Your task to perform on an android device: Open internet settings Image 0: 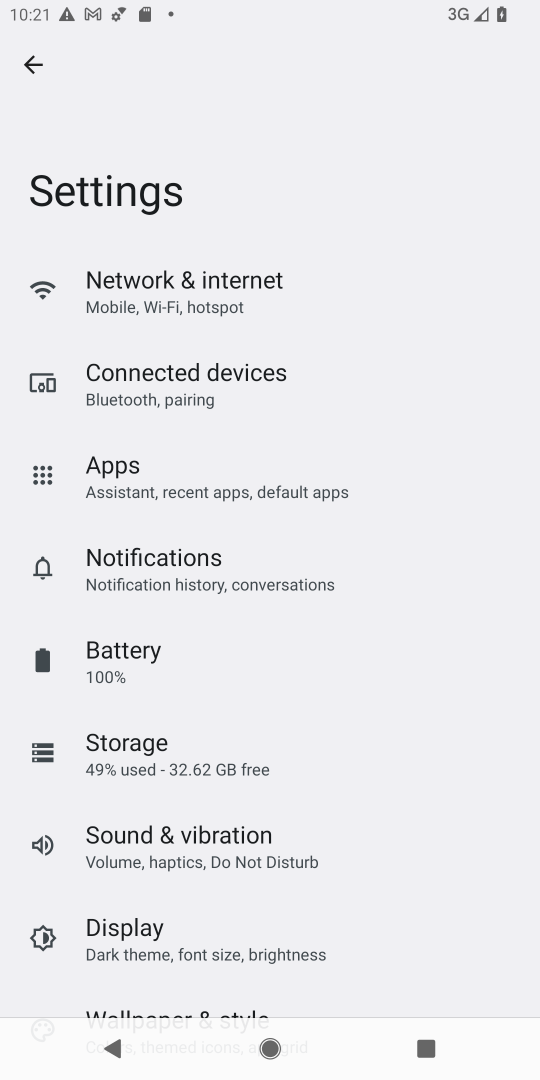
Step 0: press home button
Your task to perform on an android device: Open internet settings Image 1: 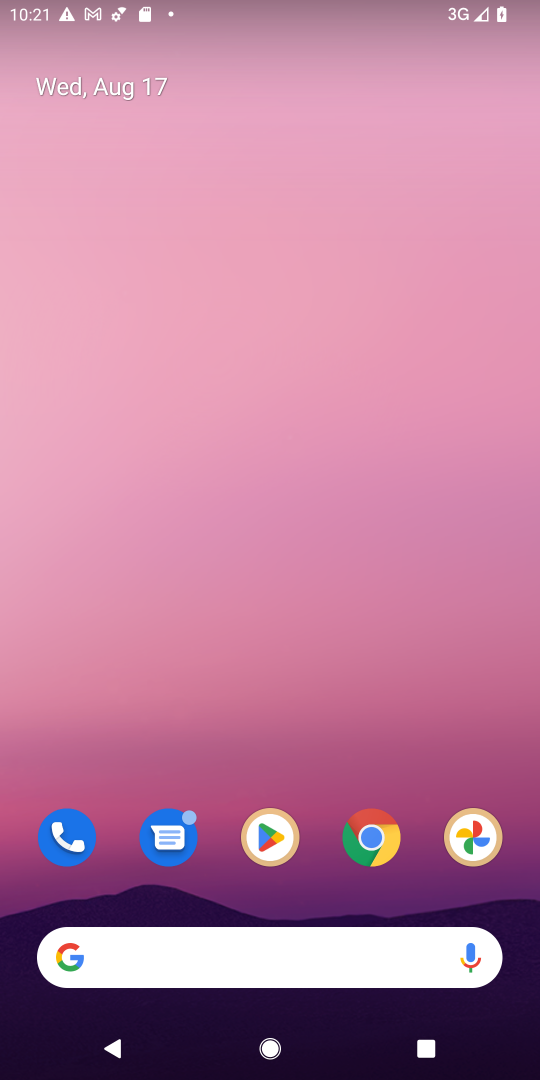
Step 1: drag from (238, 962) to (328, 155)
Your task to perform on an android device: Open internet settings Image 2: 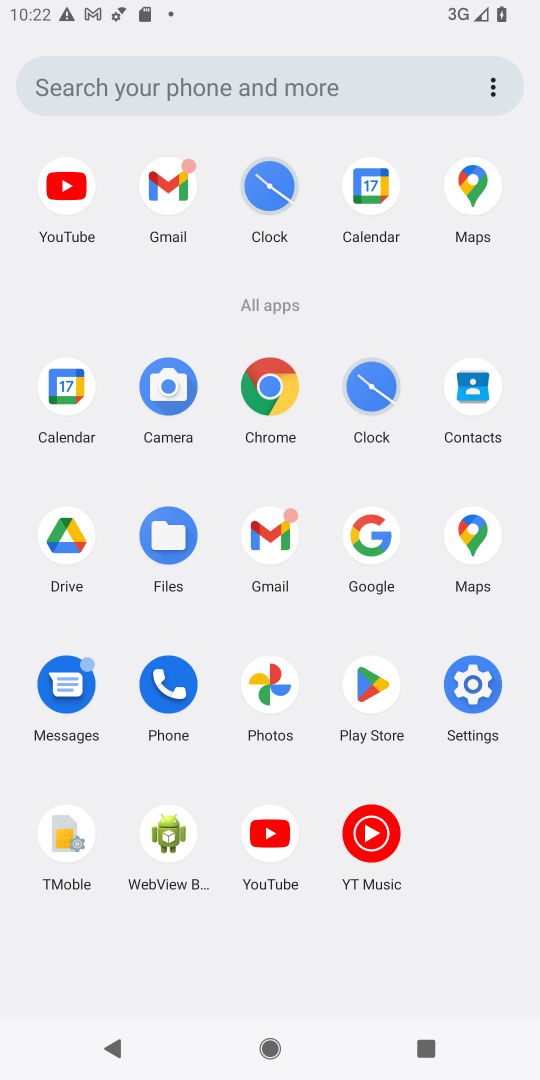
Step 2: click (472, 685)
Your task to perform on an android device: Open internet settings Image 3: 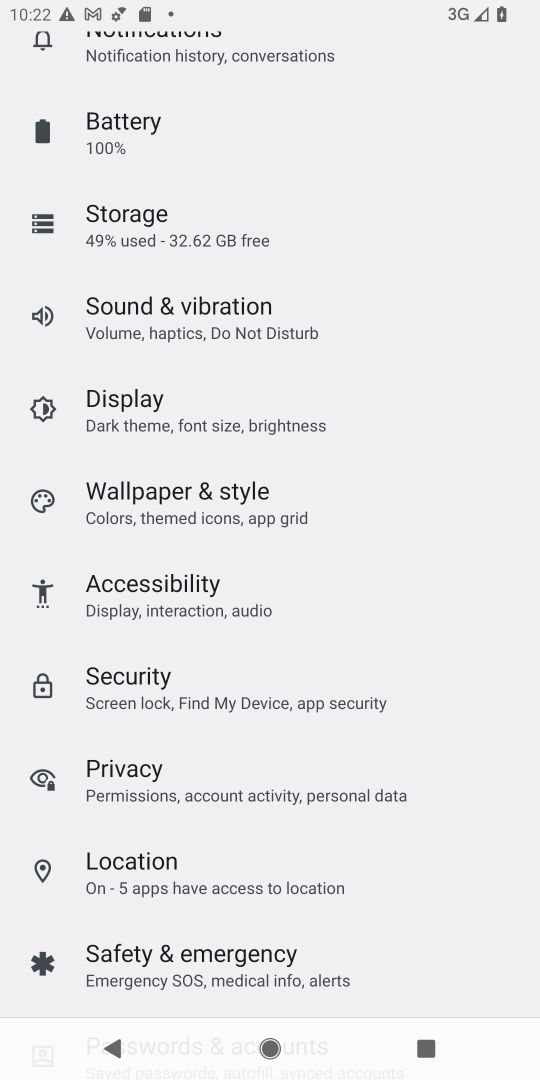
Step 3: drag from (301, 375) to (288, 563)
Your task to perform on an android device: Open internet settings Image 4: 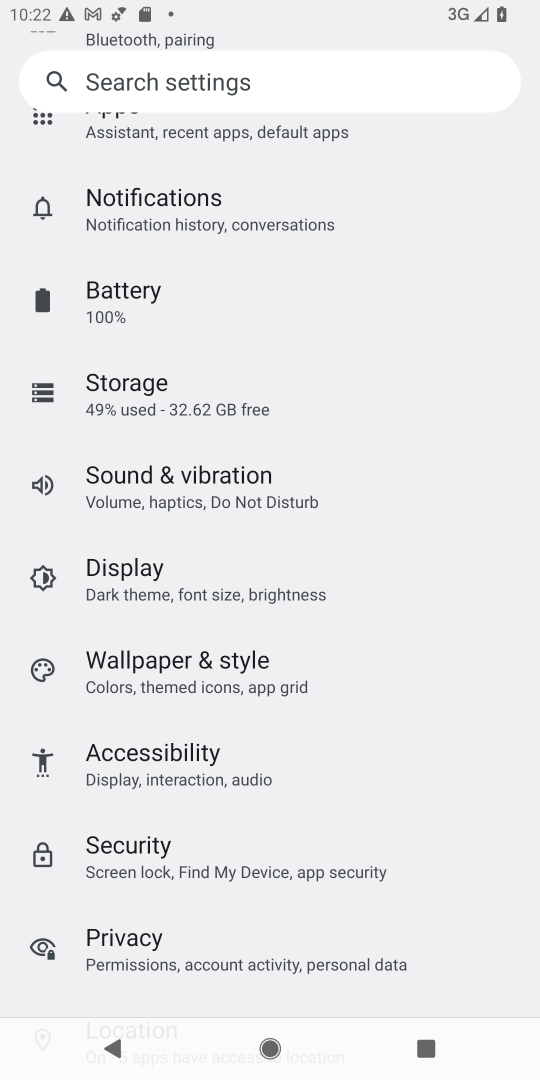
Step 4: drag from (228, 306) to (276, 542)
Your task to perform on an android device: Open internet settings Image 5: 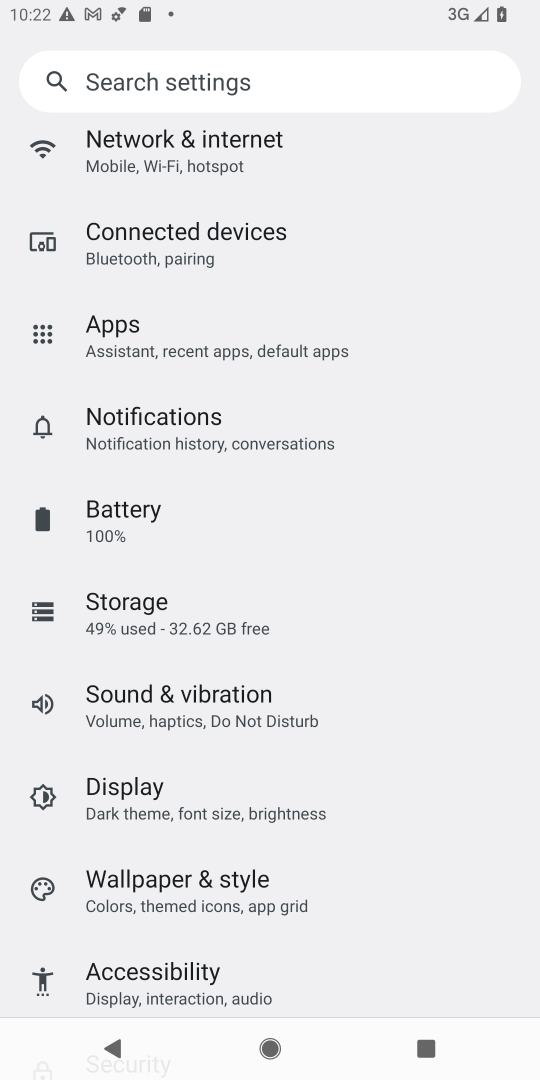
Step 5: drag from (213, 341) to (226, 583)
Your task to perform on an android device: Open internet settings Image 6: 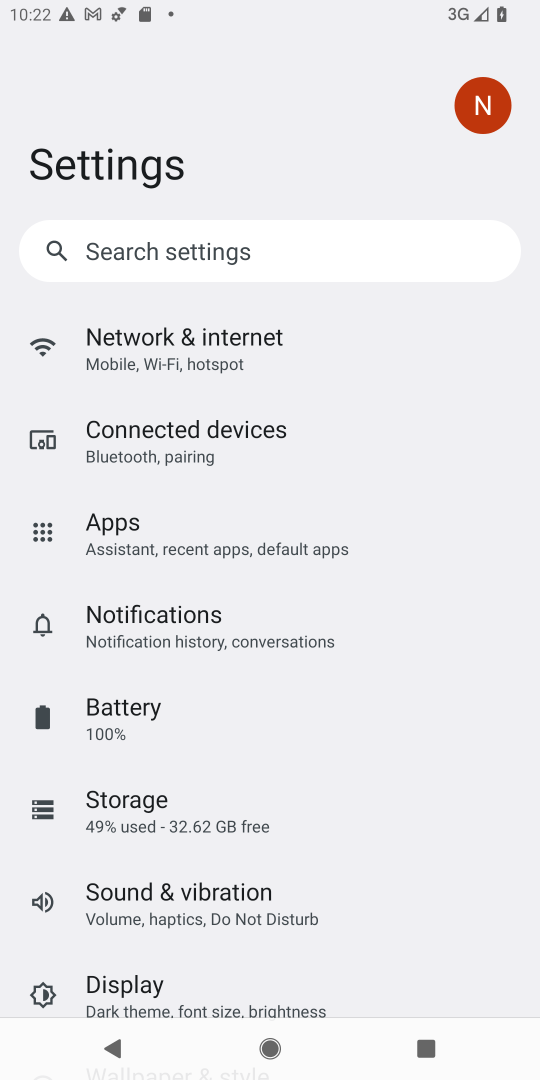
Step 6: click (209, 340)
Your task to perform on an android device: Open internet settings Image 7: 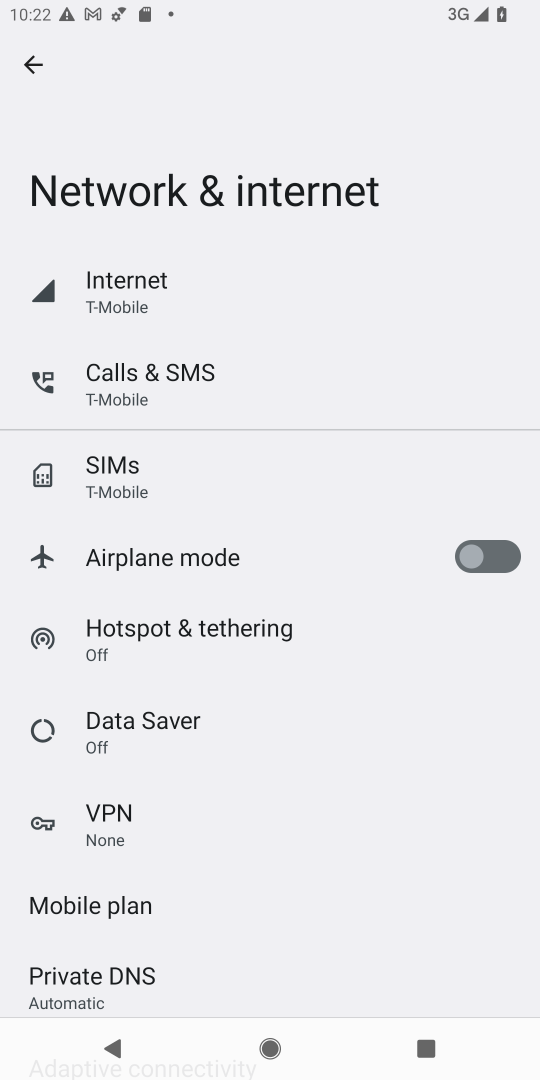
Step 7: click (129, 301)
Your task to perform on an android device: Open internet settings Image 8: 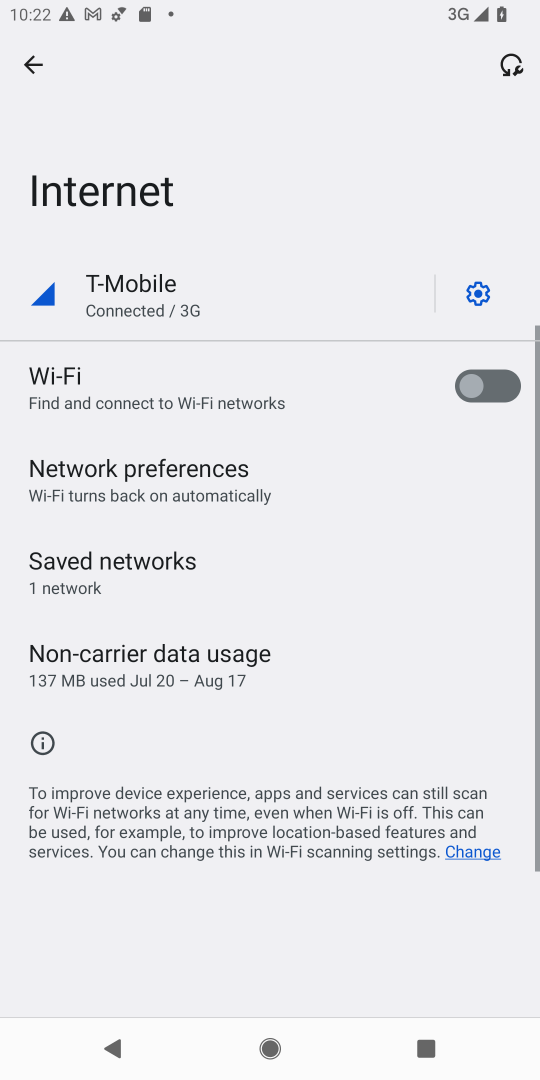
Step 8: task complete